Your task to perform on an android device: Open the web browser Image 0: 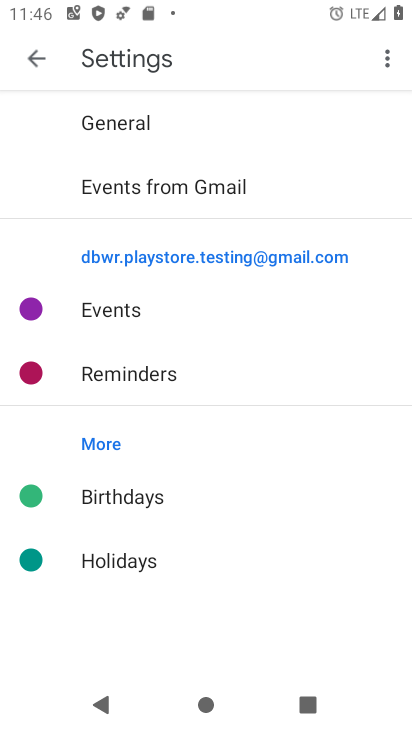
Step 0: press home button
Your task to perform on an android device: Open the web browser Image 1: 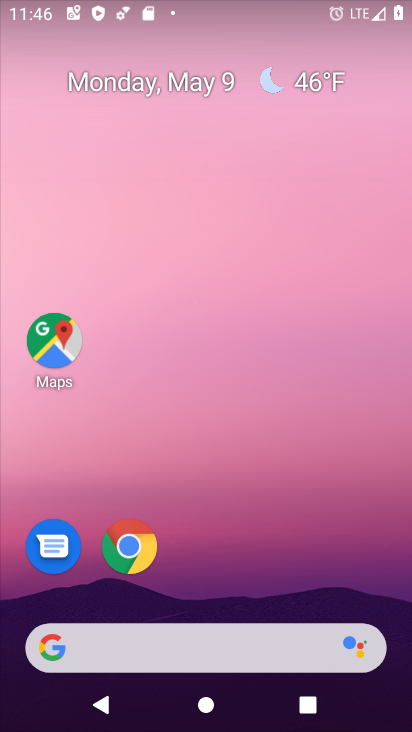
Step 1: click (139, 555)
Your task to perform on an android device: Open the web browser Image 2: 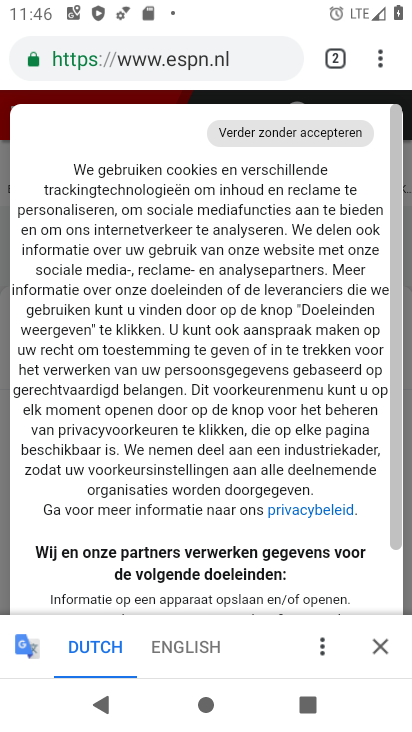
Step 2: task complete